Your task to perform on an android device: Show me recent news Image 0: 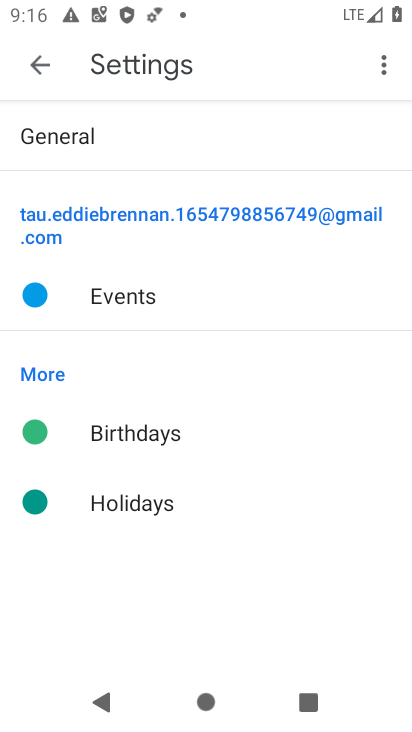
Step 0: press home button
Your task to perform on an android device: Show me recent news Image 1: 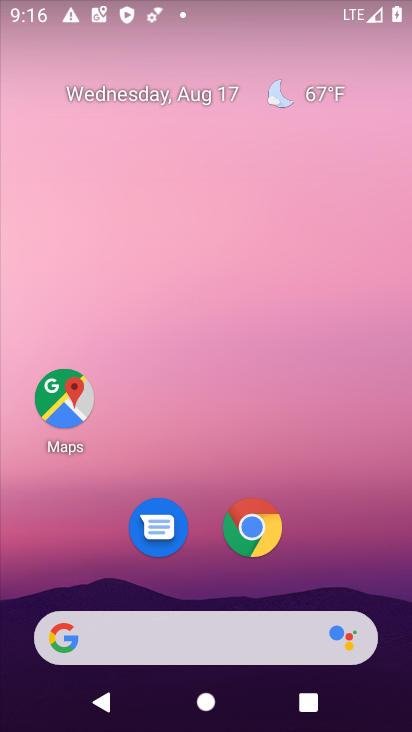
Step 1: click (234, 652)
Your task to perform on an android device: Show me recent news Image 2: 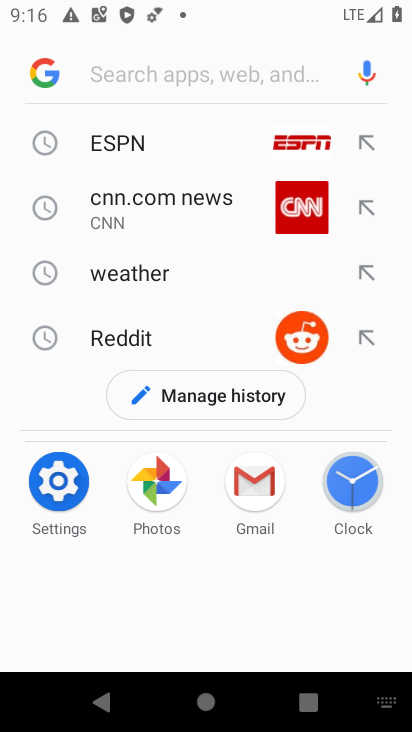
Step 2: click (38, 77)
Your task to perform on an android device: Show me recent news Image 3: 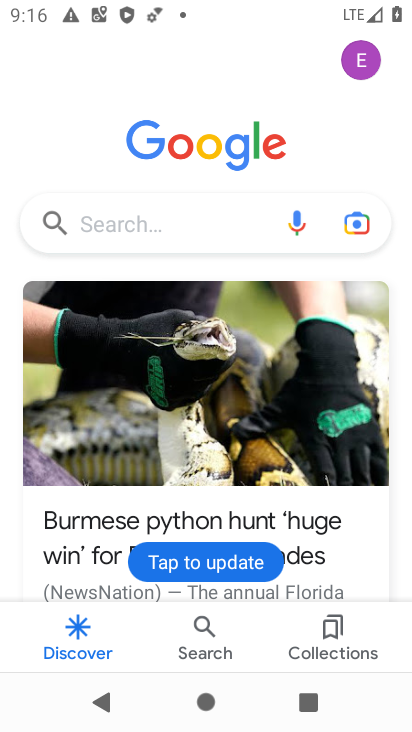
Step 3: task complete